Your task to perform on an android device: turn on priority inbox in the gmail app Image 0: 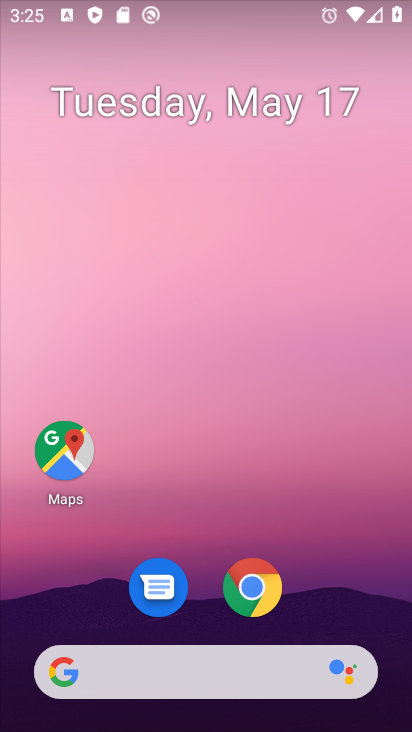
Step 0: drag from (205, 616) to (231, 94)
Your task to perform on an android device: turn on priority inbox in the gmail app Image 1: 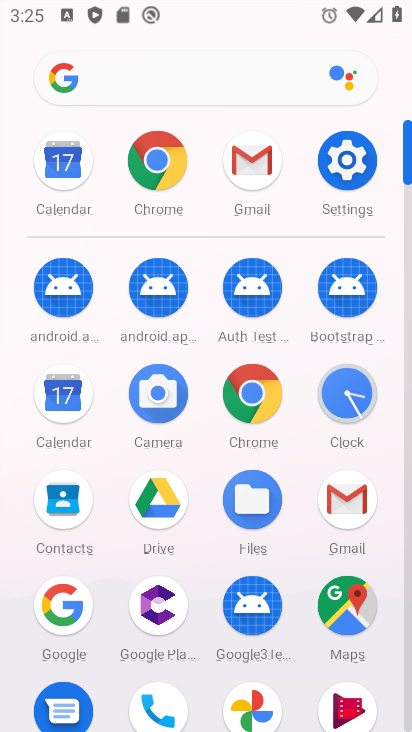
Step 1: click (348, 499)
Your task to perform on an android device: turn on priority inbox in the gmail app Image 2: 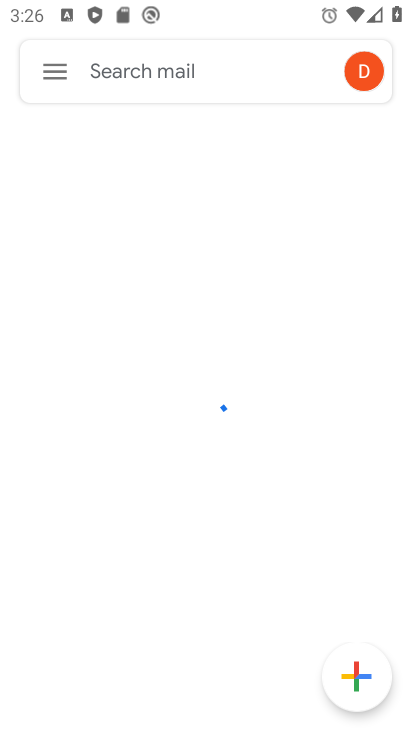
Step 2: click (59, 69)
Your task to perform on an android device: turn on priority inbox in the gmail app Image 3: 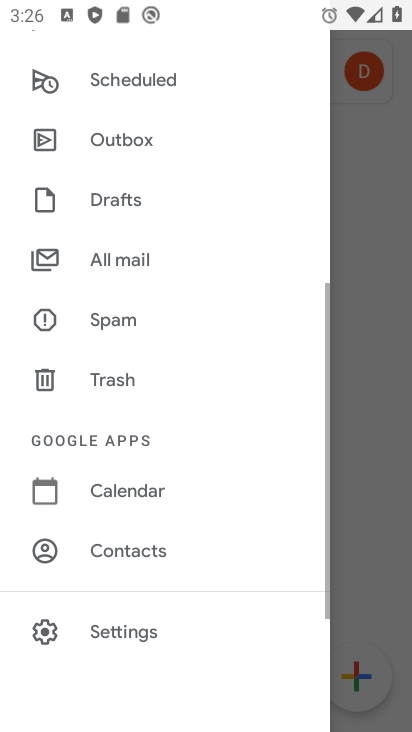
Step 3: drag from (160, 477) to (257, 3)
Your task to perform on an android device: turn on priority inbox in the gmail app Image 4: 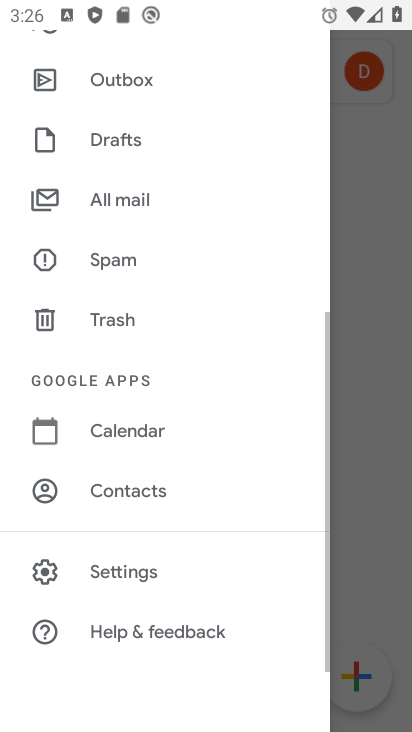
Step 4: click (136, 564)
Your task to perform on an android device: turn on priority inbox in the gmail app Image 5: 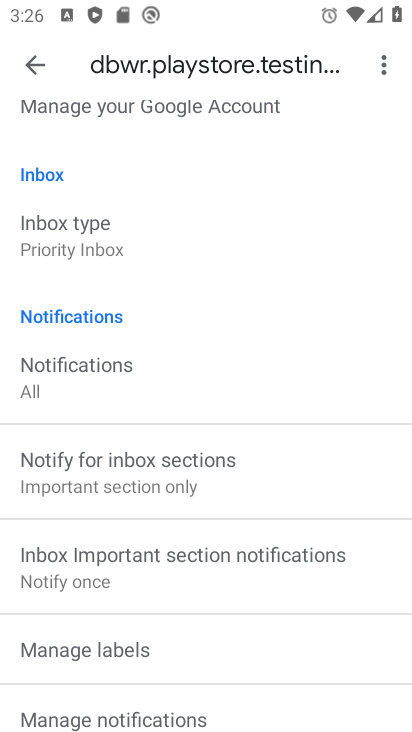
Step 5: drag from (250, 512) to (286, 230)
Your task to perform on an android device: turn on priority inbox in the gmail app Image 6: 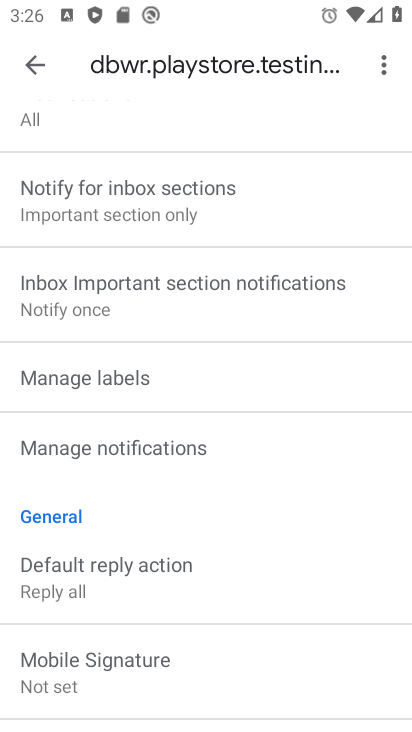
Step 6: drag from (239, 233) to (343, 722)
Your task to perform on an android device: turn on priority inbox in the gmail app Image 7: 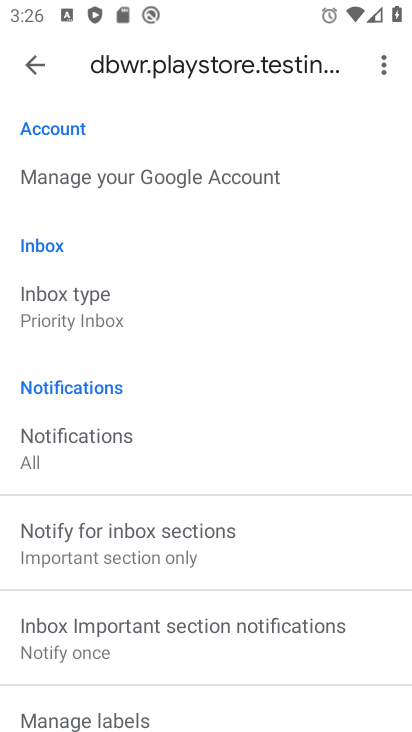
Step 7: click (148, 310)
Your task to perform on an android device: turn on priority inbox in the gmail app Image 8: 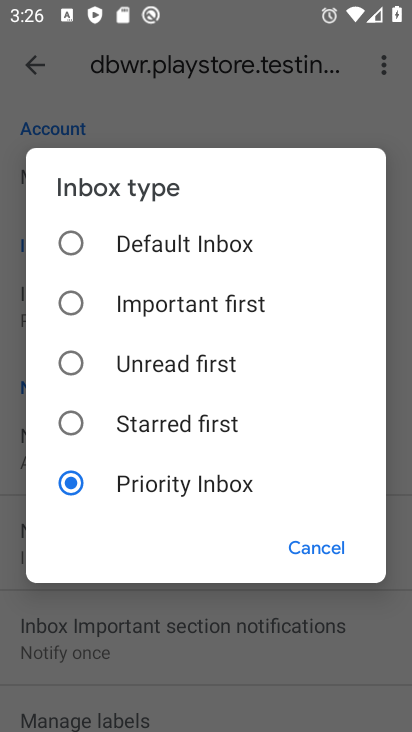
Step 8: click (124, 248)
Your task to perform on an android device: turn on priority inbox in the gmail app Image 9: 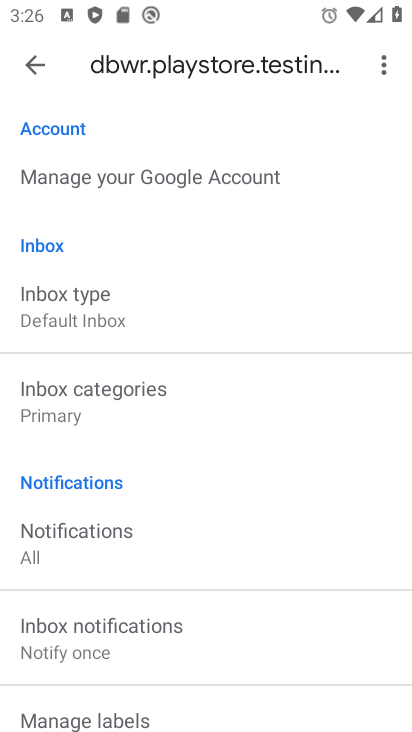
Step 9: task complete